Your task to perform on an android device: Search for "logitech g pro" on ebay, select the first entry, add it to the cart, then select checkout. Image 0: 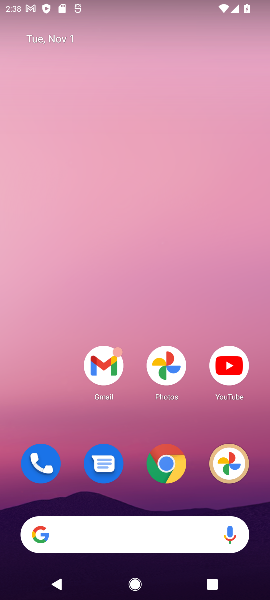
Step 0: drag from (197, 412) to (239, 22)
Your task to perform on an android device: Search for "logitech g pro" on ebay, select the first entry, add it to the cart, then select checkout. Image 1: 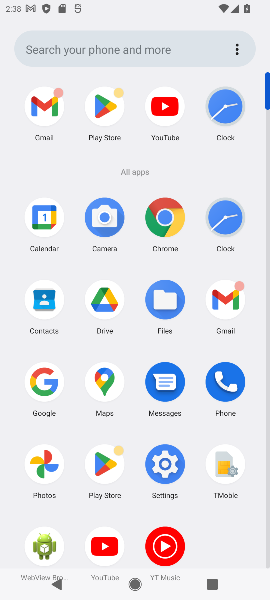
Step 1: click (162, 217)
Your task to perform on an android device: Search for "logitech g pro" on ebay, select the first entry, add it to the cart, then select checkout. Image 2: 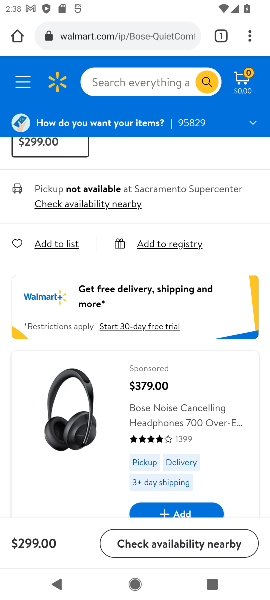
Step 2: click (137, 33)
Your task to perform on an android device: Search for "logitech g pro" on ebay, select the first entry, add it to the cart, then select checkout. Image 3: 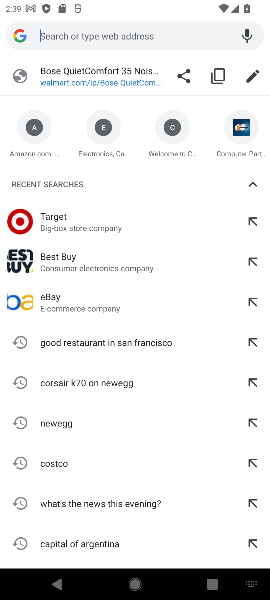
Step 3: type "ebay.com"
Your task to perform on an android device: Search for "logitech g pro" on ebay, select the first entry, add it to the cart, then select checkout. Image 4: 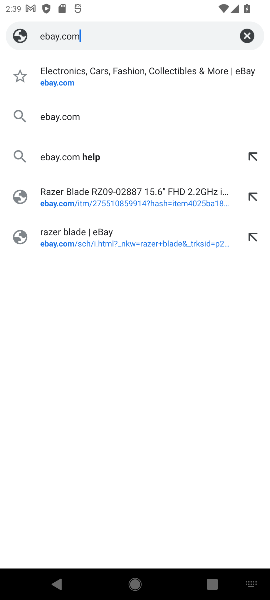
Step 4: press enter
Your task to perform on an android device: Search for "logitech g pro" on ebay, select the first entry, add it to the cart, then select checkout. Image 5: 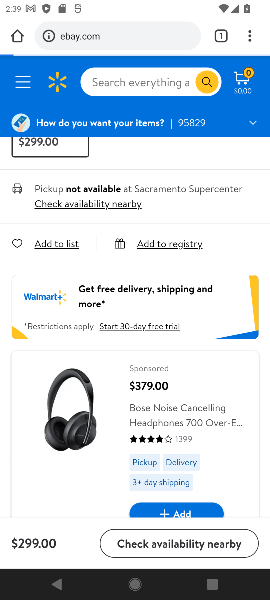
Step 5: press enter
Your task to perform on an android device: Search for "logitech g pro" on ebay, select the first entry, add it to the cart, then select checkout. Image 6: 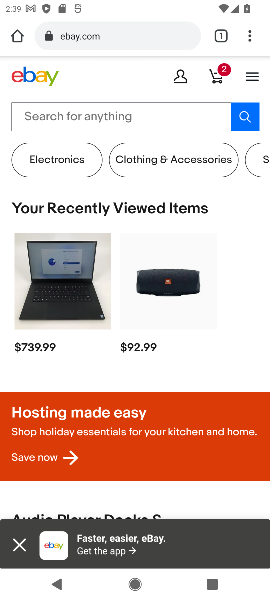
Step 6: click (186, 109)
Your task to perform on an android device: Search for "logitech g pro" on ebay, select the first entry, add it to the cart, then select checkout. Image 7: 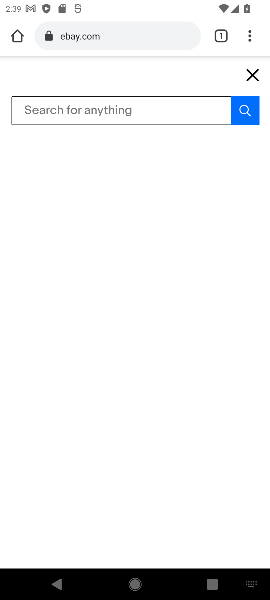
Step 7: type "logitech g pro"
Your task to perform on an android device: Search for "logitech g pro" on ebay, select the first entry, add it to the cart, then select checkout. Image 8: 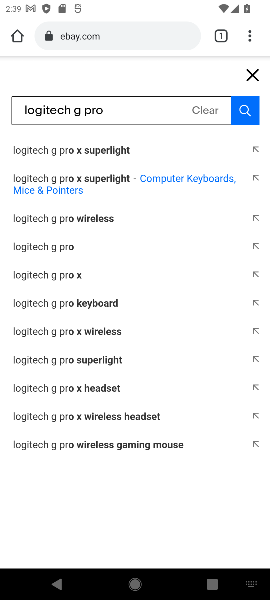
Step 8: press enter
Your task to perform on an android device: Search for "logitech g pro" on ebay, select the first entry, add it to the cart, then select checkout. Image 9: 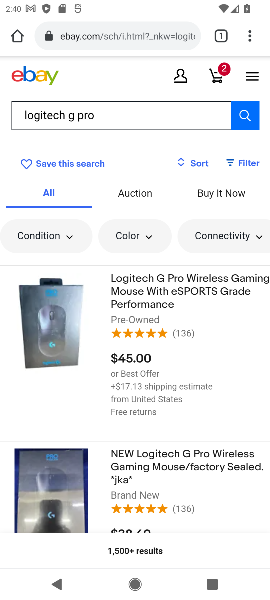
Step 9: drag from (117, 405) to (127, 316)
Your task to perform on an android device: Search for "logitech g pro" on ebay, select the first entry, add it to the cart, then select checkout. Image 10: 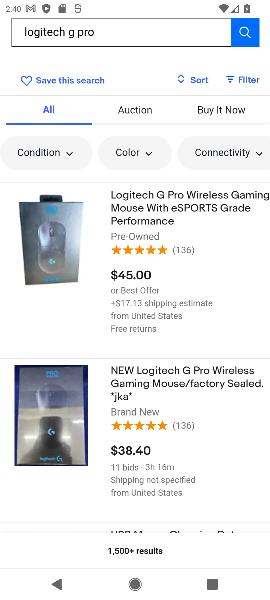
Step 10: click (77, 238)
Your task to perform on an android device: Search for "logitech g pro" on ebay, select the first entry, add it to the cart, then select checkout. Image 11: 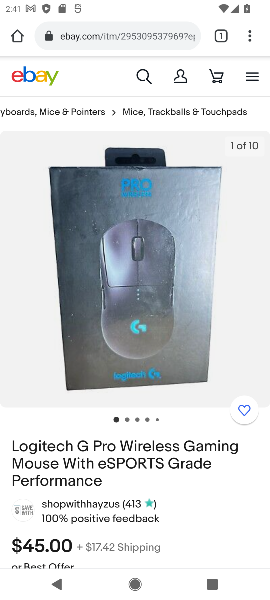
Step 11: drag from (132, 466) to (77, 0)
Your task to perform on an android device: Search for "logitech g pro" on ebay, select the first entry, add it to the cart, then select checkout. Image 12: 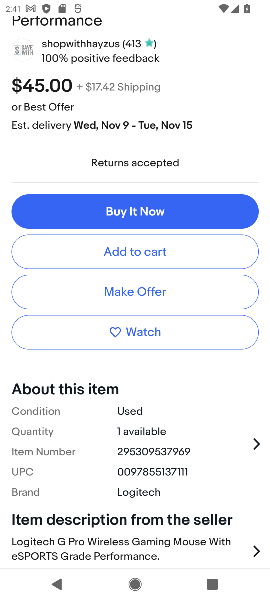
Step 12: click (148, 252)
Your task to perform on an android device: Search for "logitech g pro" on ebay, select the first entry, add it to the cart, then select checkout. Image 13: 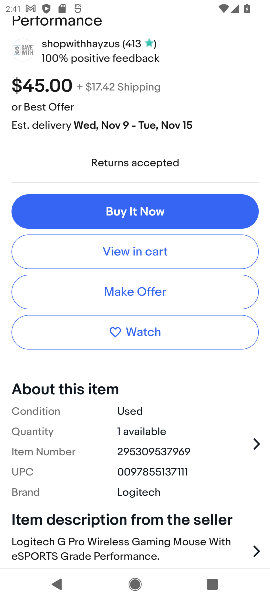
Step 13: click (191, 261)
Your task to perform on an android device: Search for "logitech g pro" on ebay, select the first entry, add it to the cart, then select checkout. Image 14: 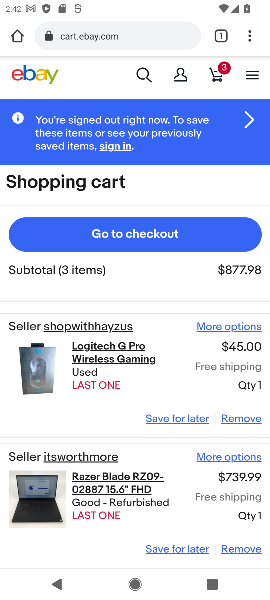
Step 14: click (154, 235)
Your task to perform on an android device: Search for "logitech g pro" on ebay, select the first entry, add it to the cart, then select checkout. Image 15: 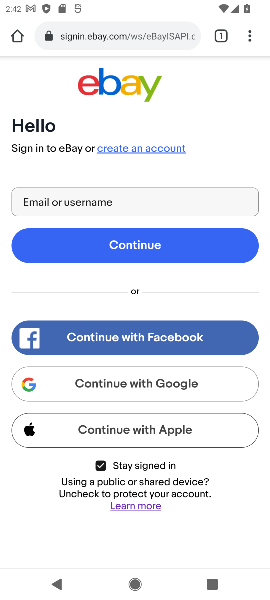
Step 15: task complete